Your task to perform on an android device: read, delete, or share a saved page in the chrome app Image 0: 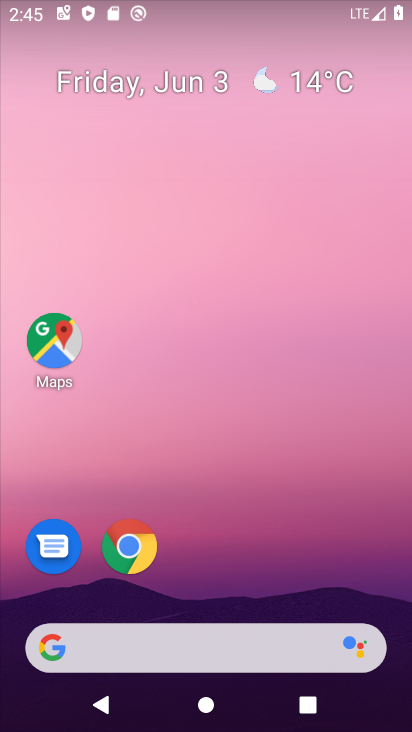
Step 0: drag from (337, 529) to (318, 9)
Your task to perform on an android device: read, delete, or share a saved page in the chrome app Image 1: 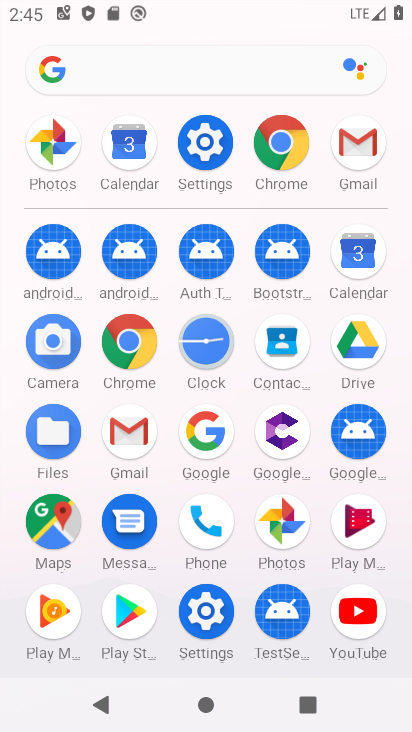
Step 1: click (294, 179)
Your task to perform on an android device: read, delete, or share a saved page in the chrome app Image 2: 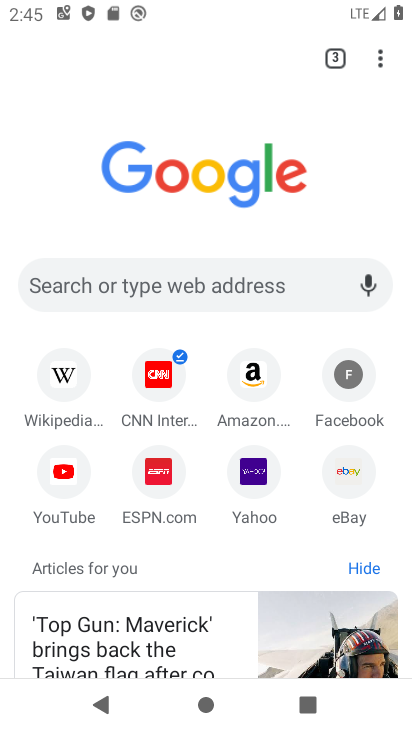
Step 2: click (285, 163)
Your task to perform on an android device: read, delete, or share a saved page in the chrome app Image 3: 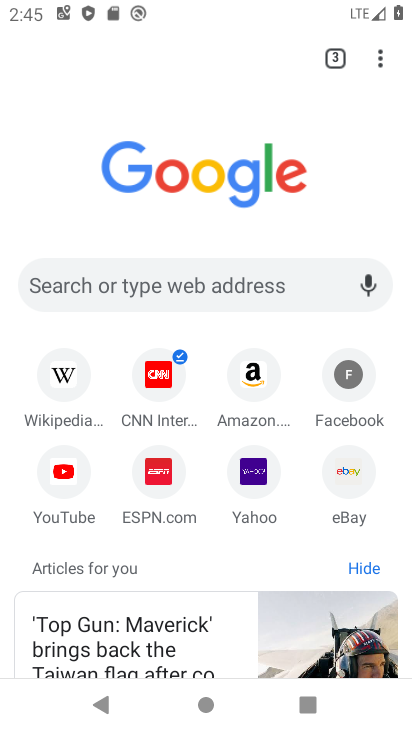
Step 3: task complete